Your task to perform on an android device: remove spam from my inbox in the gmail app Image 0: 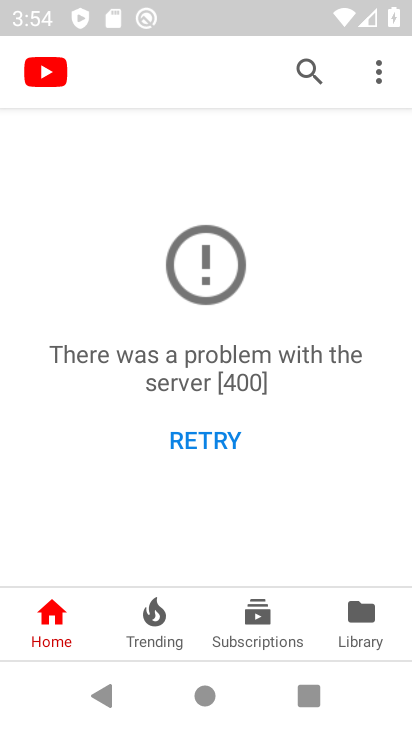
Step 0: press back button
Your task to perform on an android device: remove spam from my inbox in the gmail app Image 1: 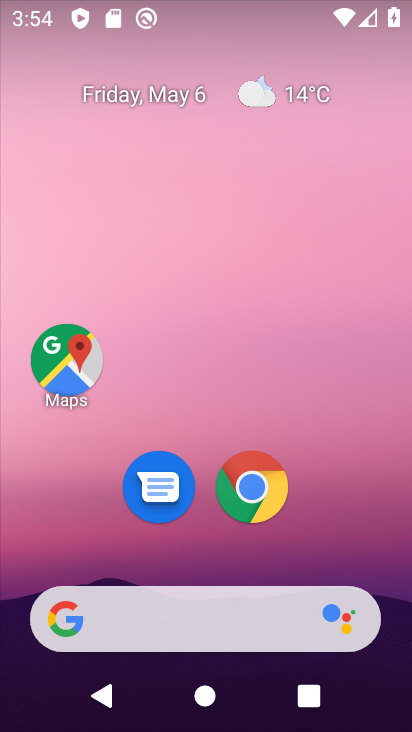
Step 1: drag from (130, 582) to (234, 65)
Your task to perform on an android device: remove spam from my inbox in the gmail app Image 2: 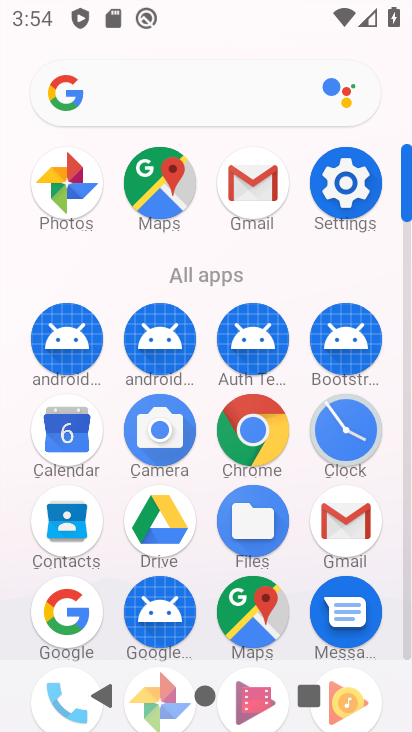
Step 2: click (357, 510)
Your task to perform on an android device: remove spam from my inbox in the gmail app Image 3: 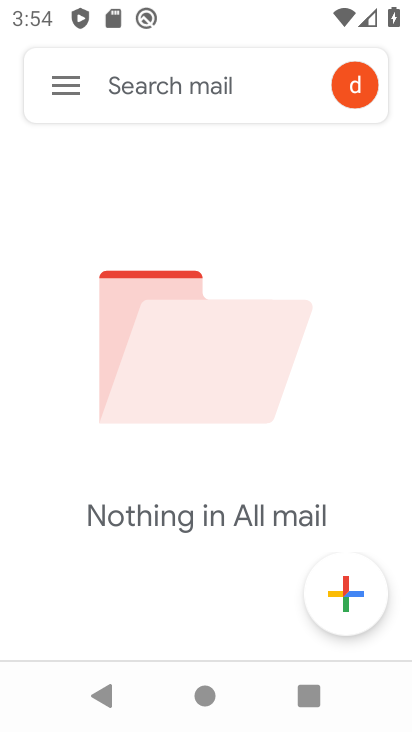
Step 3: click (73, 88)
Your task to perform on an android device: remove spam from my inbox in the gmail app Image 4: 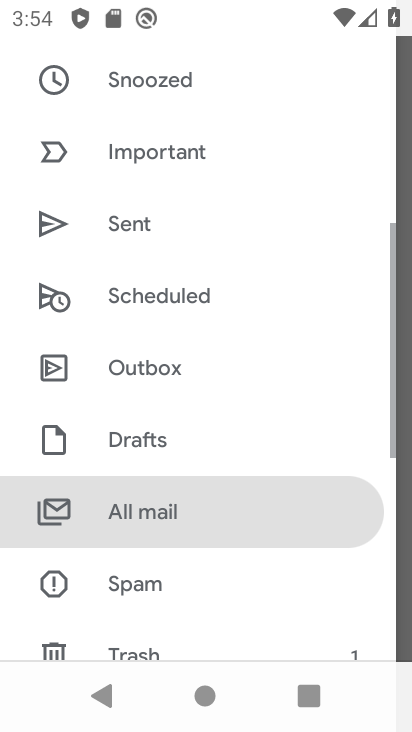
Step 4: click (167, 591)
Your task to perform on an android device: remove spam from my inbox in the gmail app Image 5: 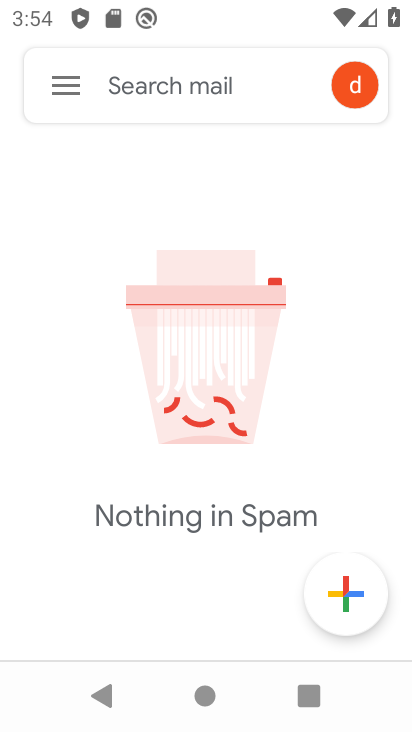
Step 5: task complete